Your task to perform on an android device: open app "Pluto TV - Live TV and Movies" Image 0: 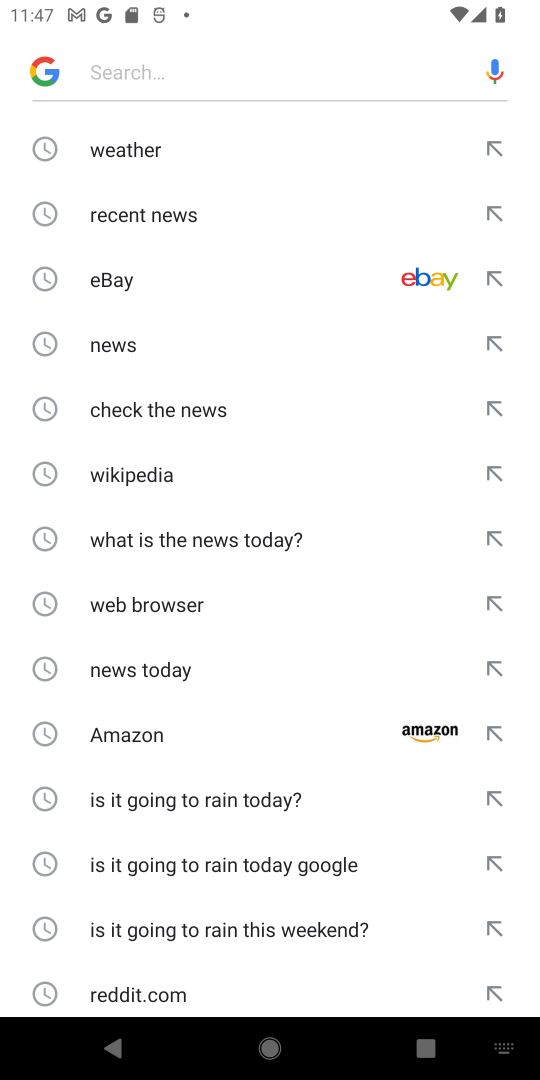
Step 0: press back button
Your task to perform on an android device: open app "Pluto TV - Live TV and Movies" Image 1: 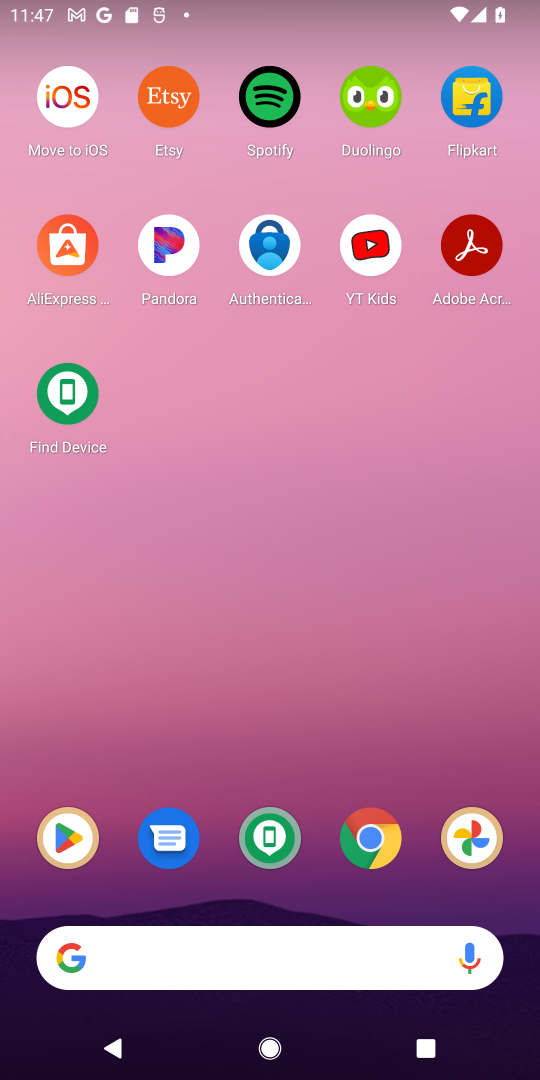
Step 1: click (68, 860)
Your task to perform on an android device: open app "Pluto TV - Live TV and Movies" Image 2: 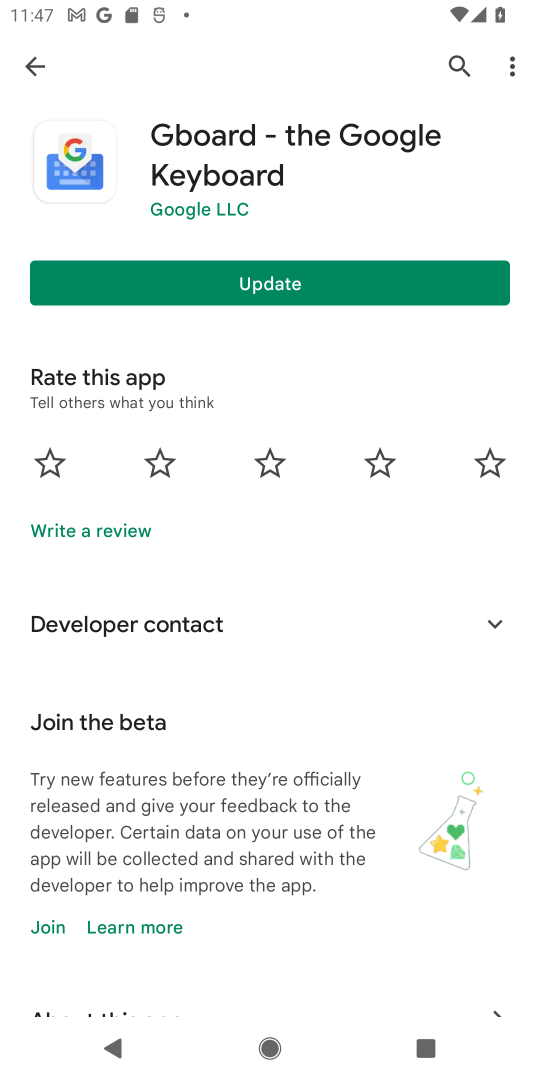
Step 2: click (457, 66)
Your task to perform on an android device: open app "Pluto TV - Live TV and Movies" Image 3: 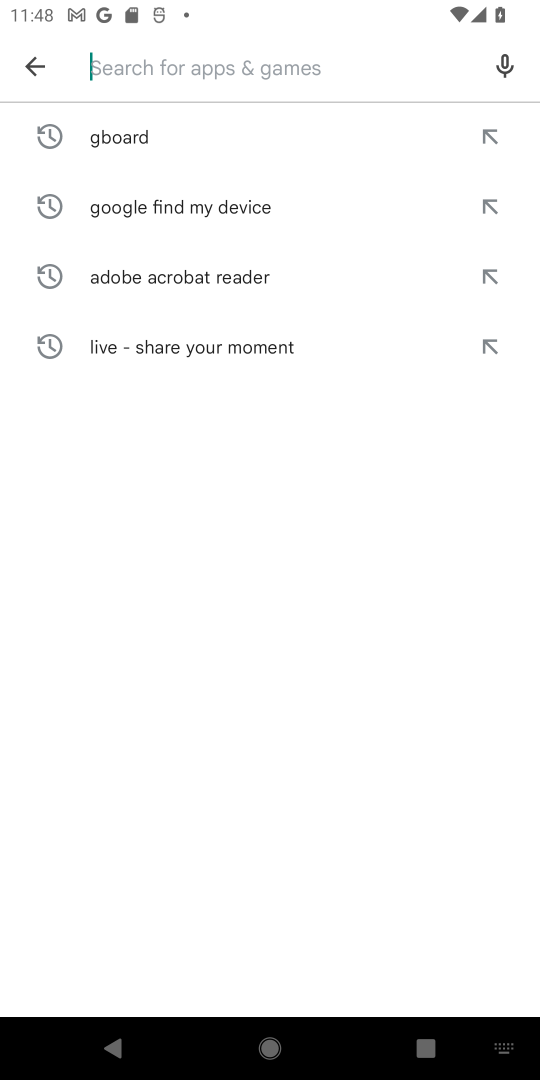
Step 3: type "Pluto TV - Live TV and Movies"
Your task to perform on an android device: open app "Pluto TV - Live TV and Movies" Image 4: 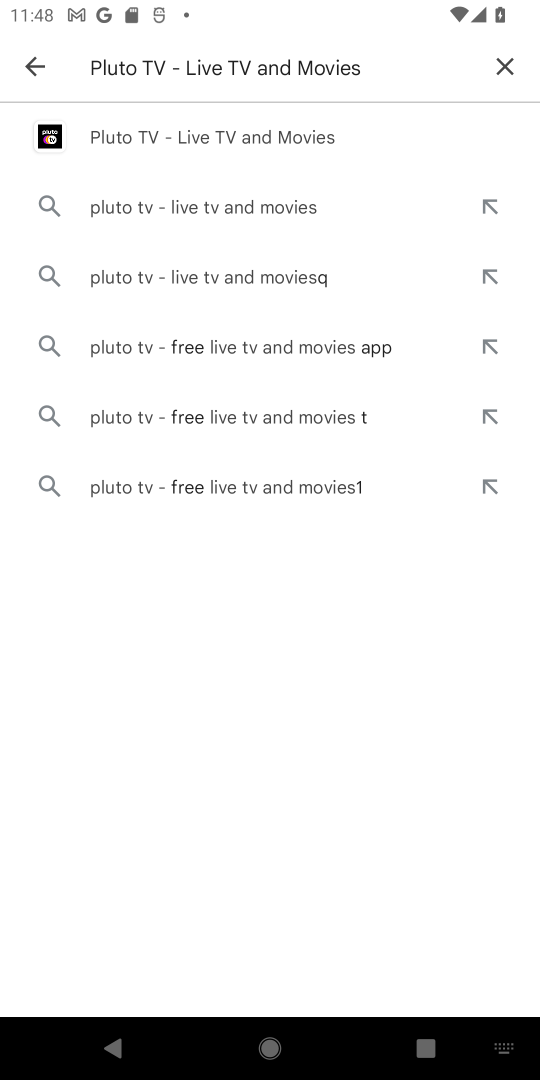
Step 4: click (269, 135)
Your task to perform on an android device: open app "Pluto TV - Live TV and Movies" Image 5: 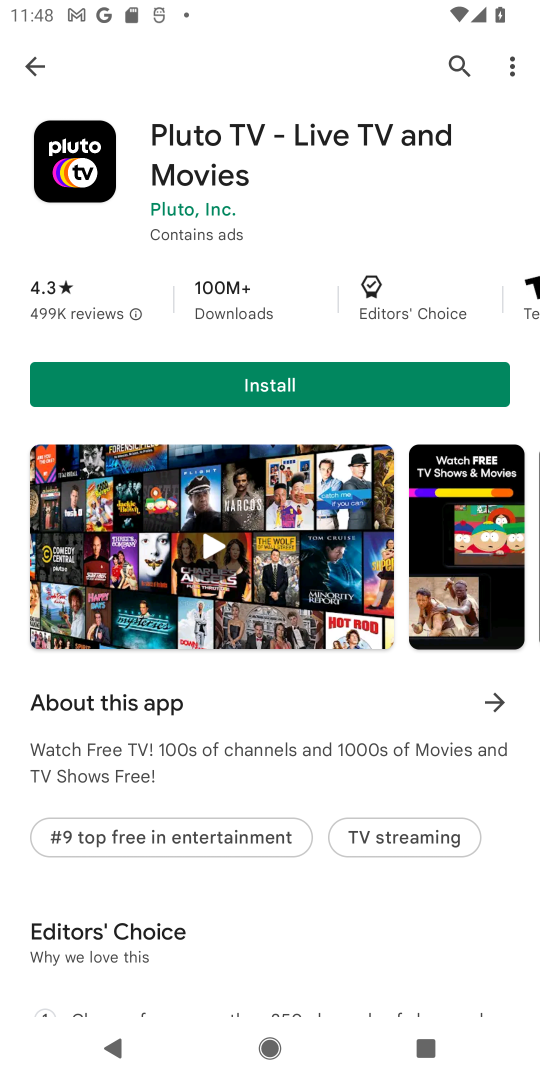
Step 5: task complete